Your task to perform on an android device: Open Wikipedia Image 0: 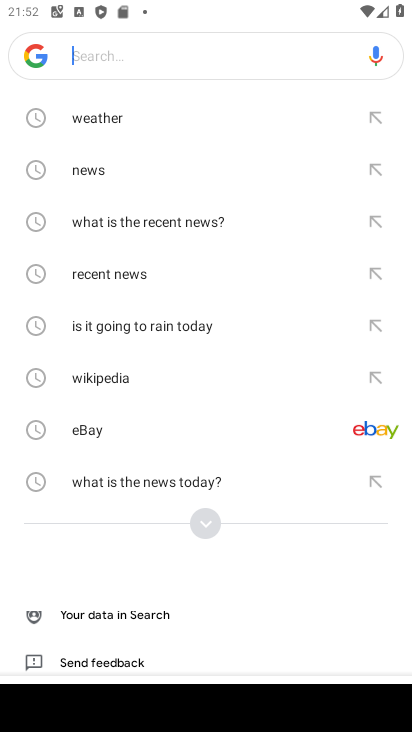
Step 0: click (118, 366)
Your task to perform on an android device: Open Wikipedia Image 1: 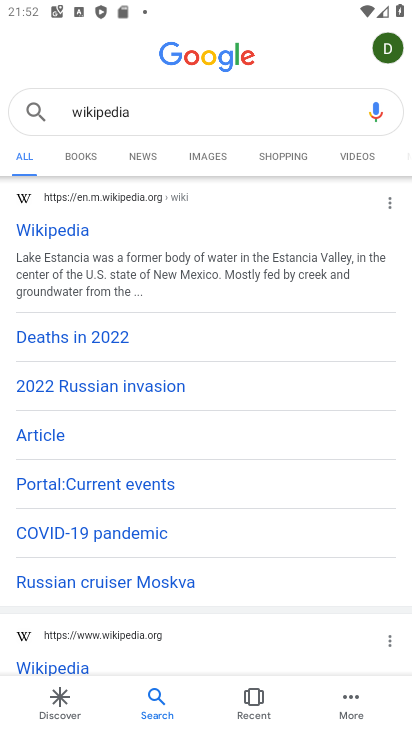
Step 1: press back button
Your task to perform on an android device: Open Wikipedia Image 2: 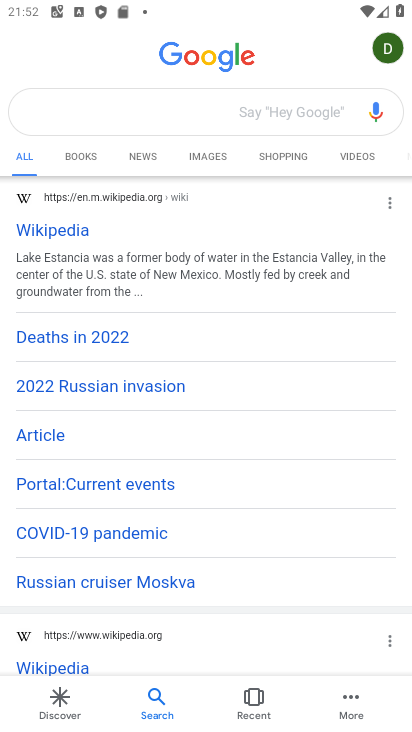
Step 2: press back button
Your task to perform on an android device: Open Wikipedia Image 3: 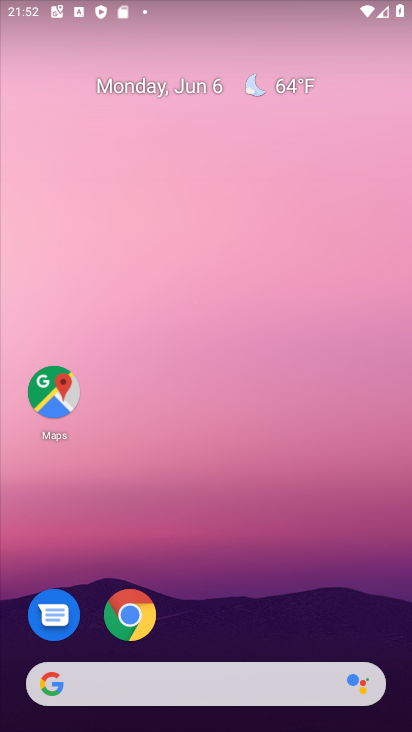
Step 3: click (126, 604)
Your task to perform on an android device: Open Wikipedia Image 4: 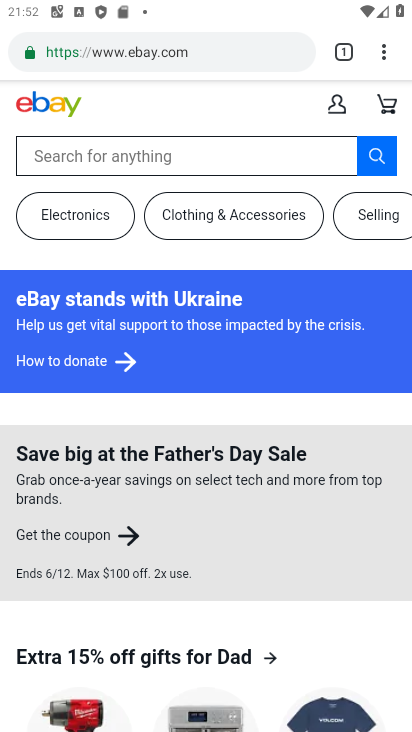
Step 4: click (200, 56)
Your task to perform on an android device: Open Wikipedia Image 5: 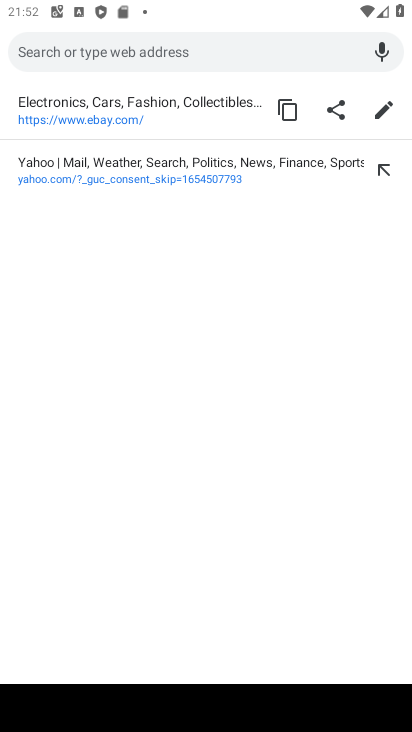
Step 5: type "Wikipedia"
Your task to perform on an android device: Open Wikipedia Image 6: 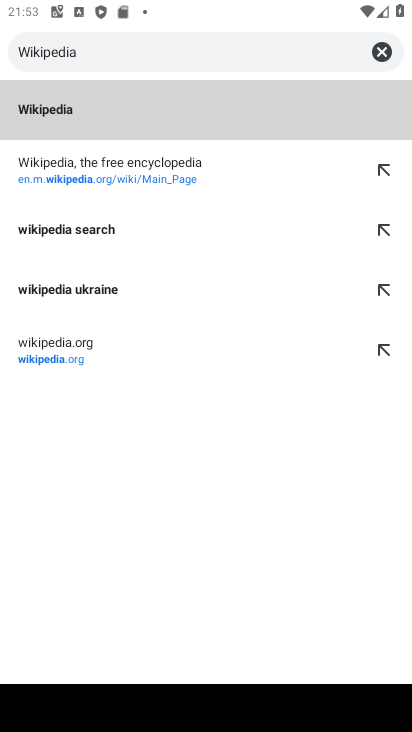
Step 6: click (42, 224)
Your task to perform on an android device: Open Wikipedia Image 7: 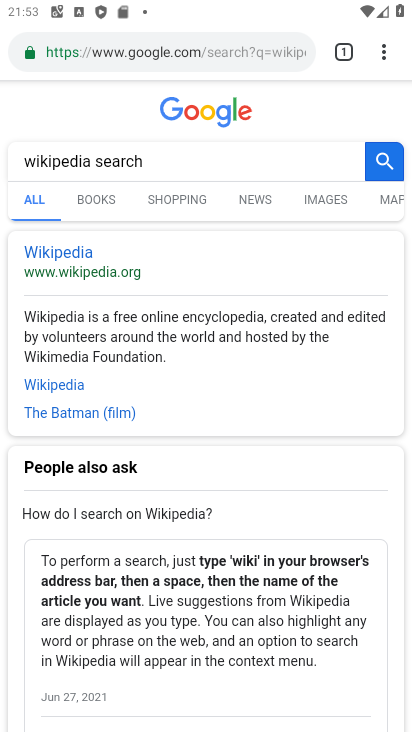
Step 7: task complete